Your task to perform on an android device: Open Google Image 0: 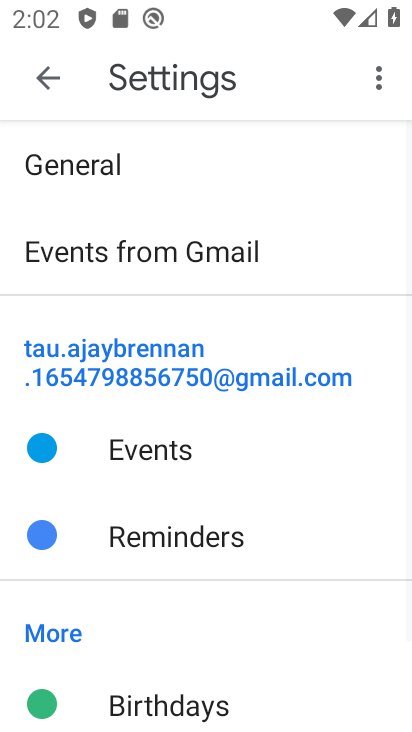
Step 0: press back button
Your task to perform on an android device: Open Google Image 1: 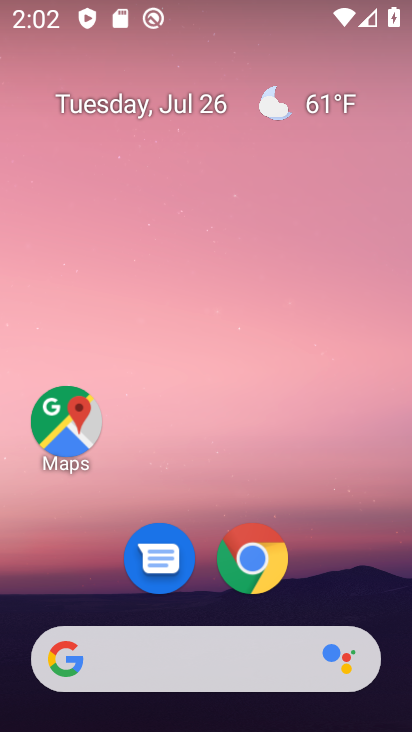
Step 1: drag from (112, 595) to (236, 10)
Your task to perform on an android device: Open Google Image 2: 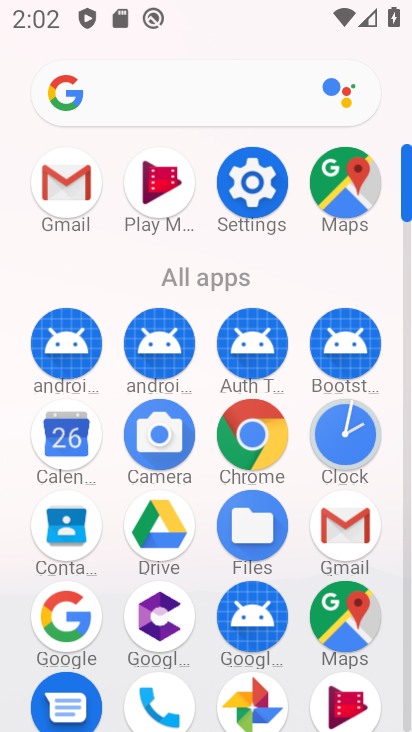
Step 2: click (55, 623)
Your task to perform on an android device: Open Google Image 3: 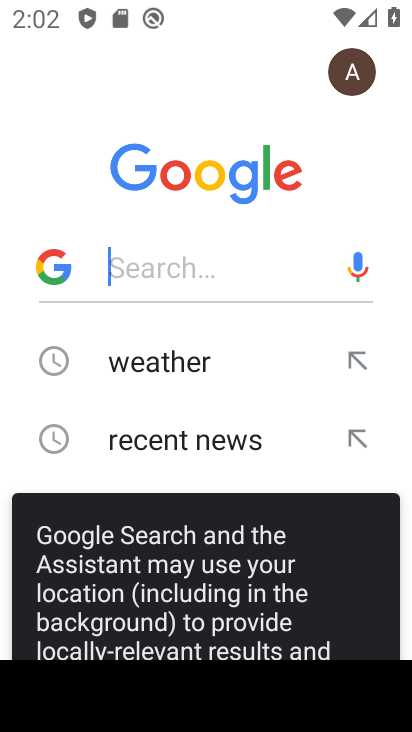
Step 3: task complete